Your task to perform on an android device: Open maps Image 0: 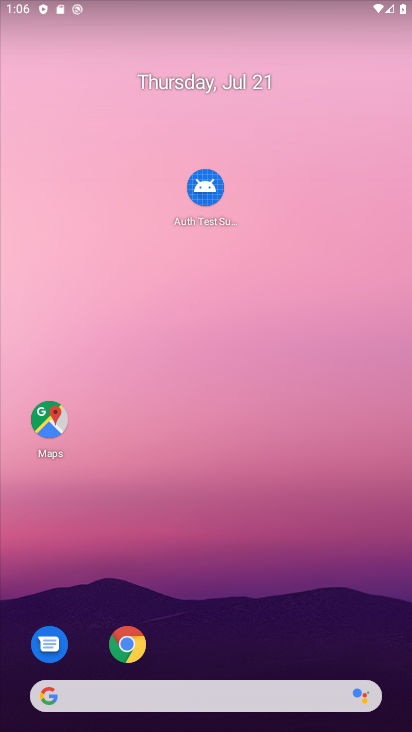
Step 0: drag from (254, 677) to (222, 151)
Your task to perform on an android device: Open maps Image 1: 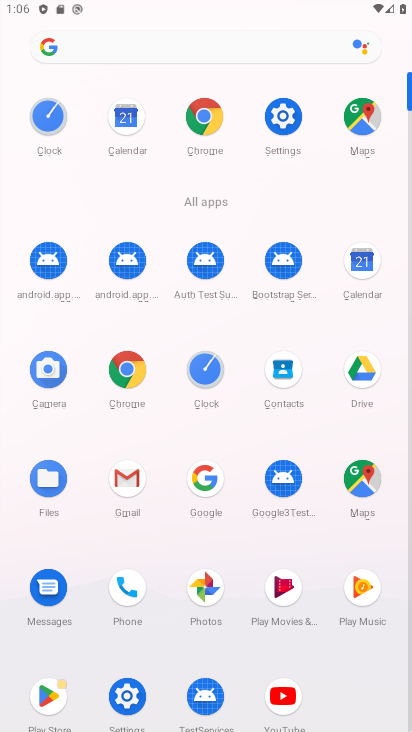
Step 1: click (363, 489)
Your task to perform on an android device: Open maps Image 2: 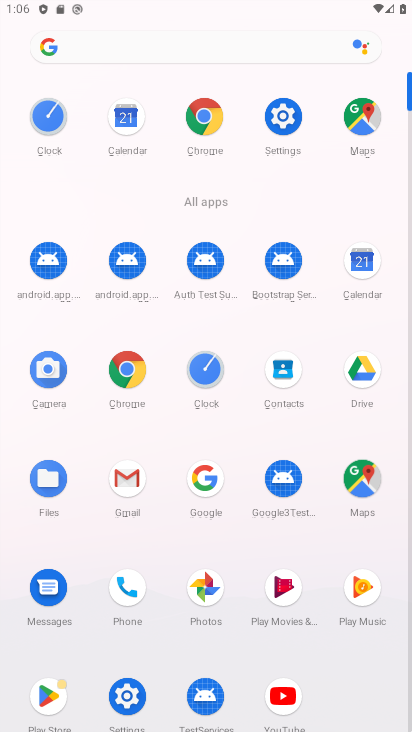
Step 2: click (363, 488)
Your task to perform on an android device: Open maps Image 3: 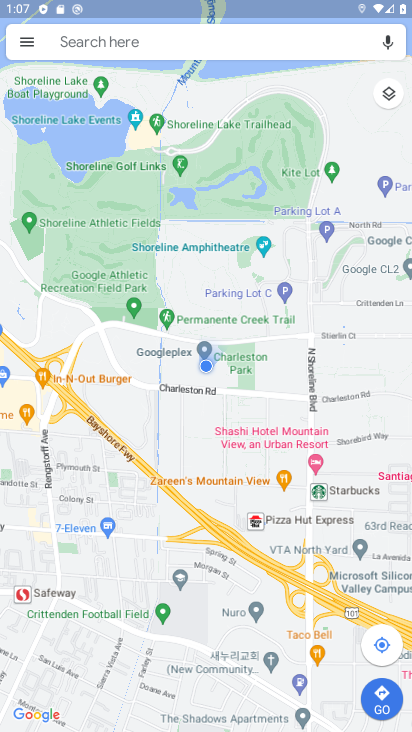
Step 3: task complete